Your task to perform on an android device: turn on the 12-hour format for clock Image 0: 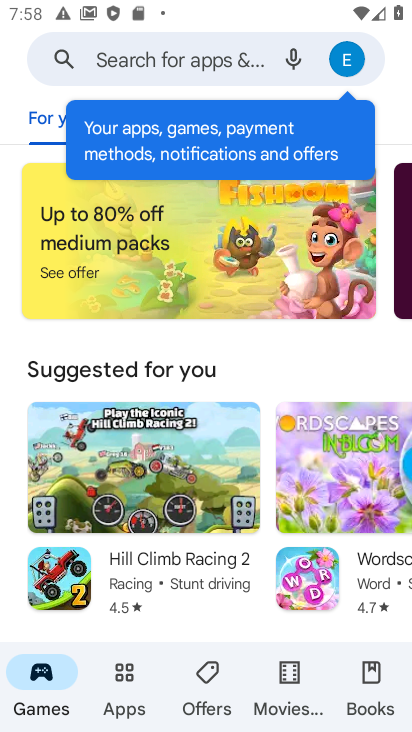
Step 0: press home button
Your task to perform on an android device: turn on the 12-hour format for clock Image 1: 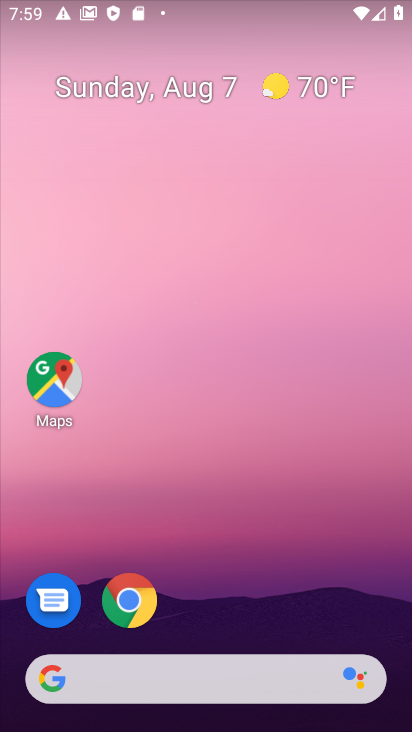
Step 1: drag from (207, 613) to (234, 40)
Your task to perform on an android device: turn on the 12-hour format for clock Image 2: 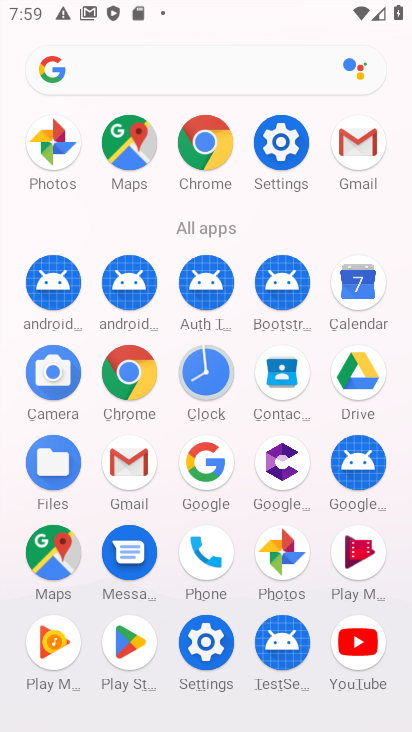
Step 2: click (214, 366)
Your task to perform on an android device: turn on the 12-hour format for clock Image 3: 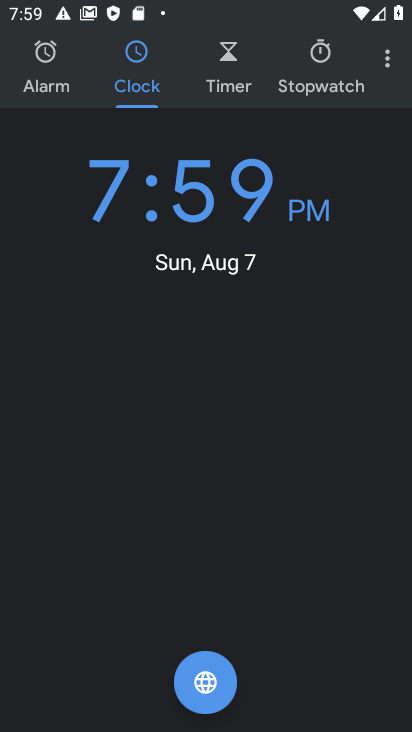
Step 3: click (385, 65)
Your task to perform on an android device: turn on the 12-hour format for clock Image 4: 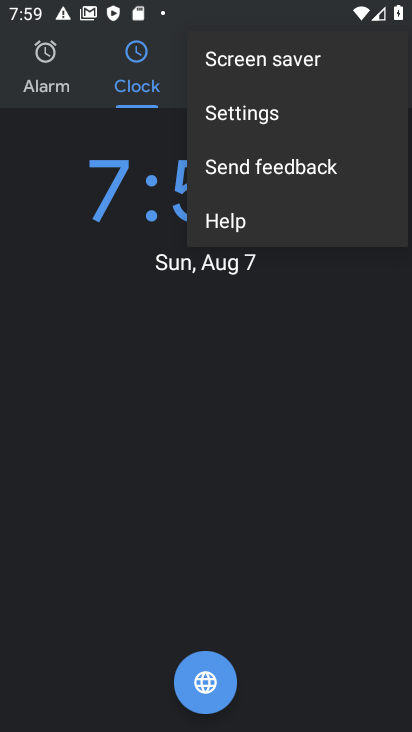
Step 4: click (259, 115)
Your task to perform on an android device: turn on the 12-hour format for clock Image 5: 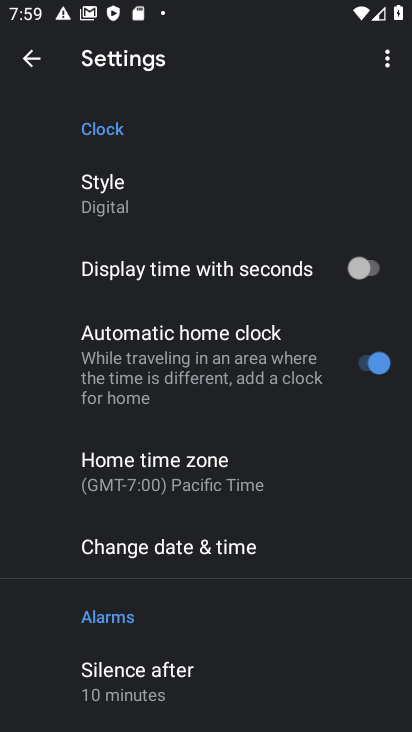
Step 5: click (97, 540)
Your task to perform on an android device: turn on the 12-hour format for clock Image 6: 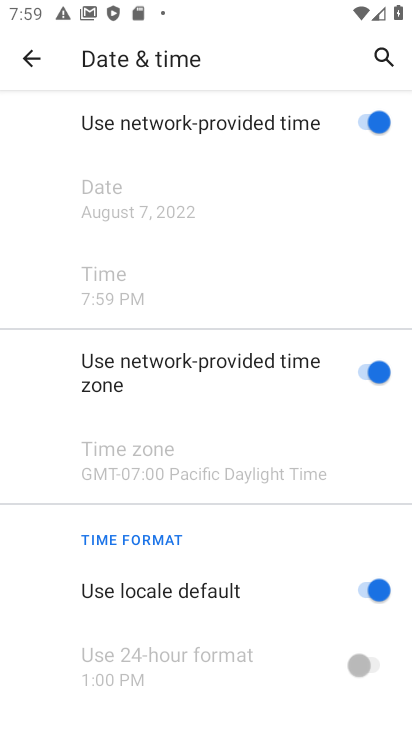
Step 6: task complete